Your task to perform on an android device: open sync settings in chrome Image 0: 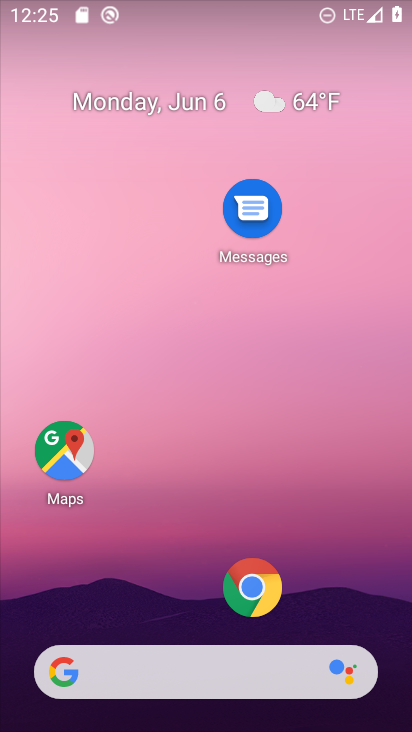
Step 0: click (255, 574)
Your task to perform on an android device: open sync settings in chrome Image 1: 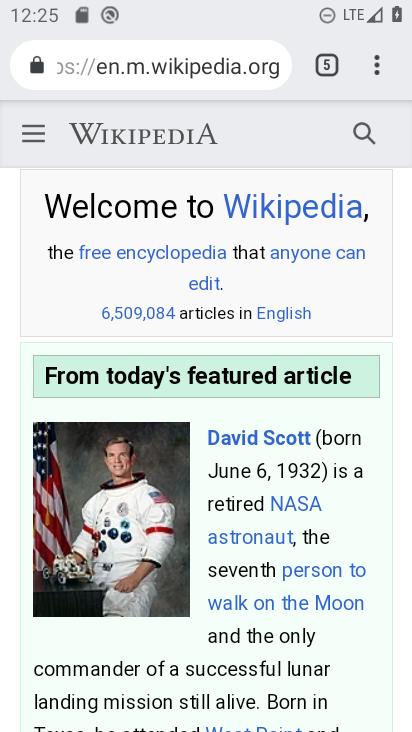
Step 1: click (388, 58)
Your task to perform on an android device: open sync settings in chrome Image 2: 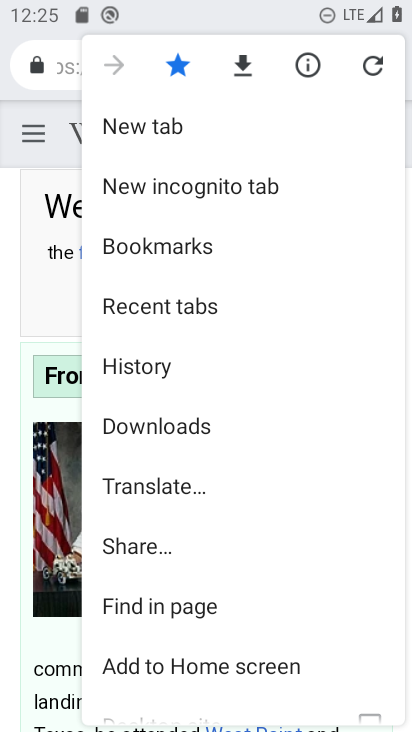
Step 2: drag from (166, 673) to (233, 268)
Your task to perform on an android device: open sync settings in chrome Image 3: 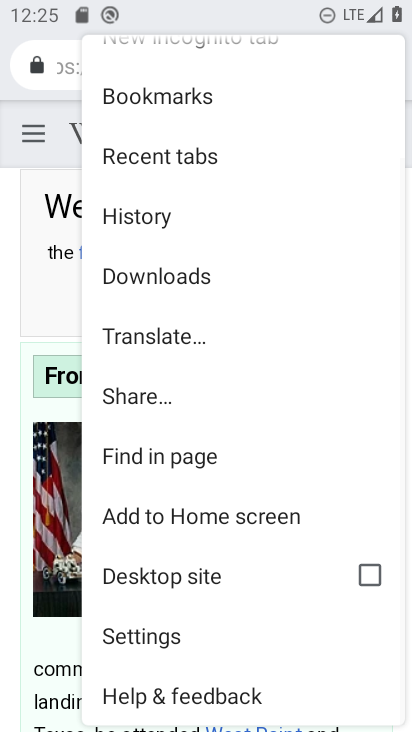
Step 3: click (133, 640)
Your task to perform on an android device: open sync settings in chrome Image 4: 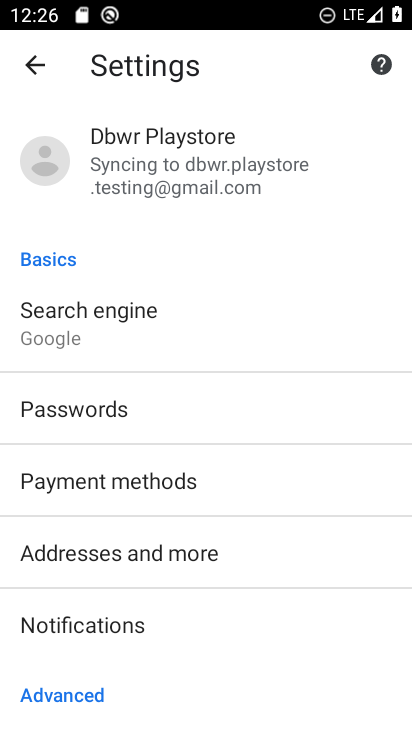
Step 4: click (247, 185)
Your task to perform on an android device: open sync settings in chrome Image 5: 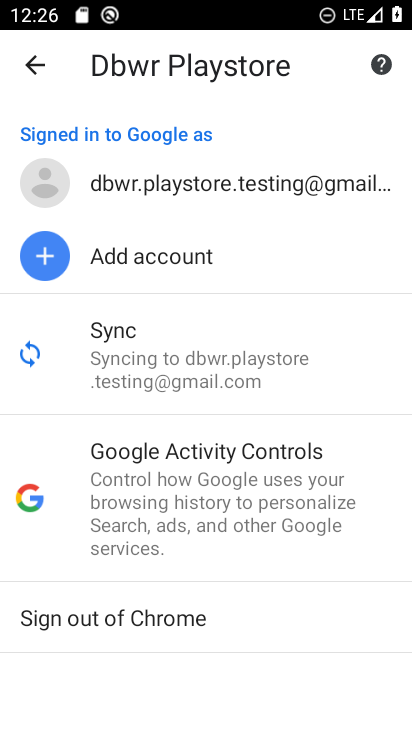
Step 5: click (99, 374)
Your task to perform on an android device: open sync settings in chrome Image 6: 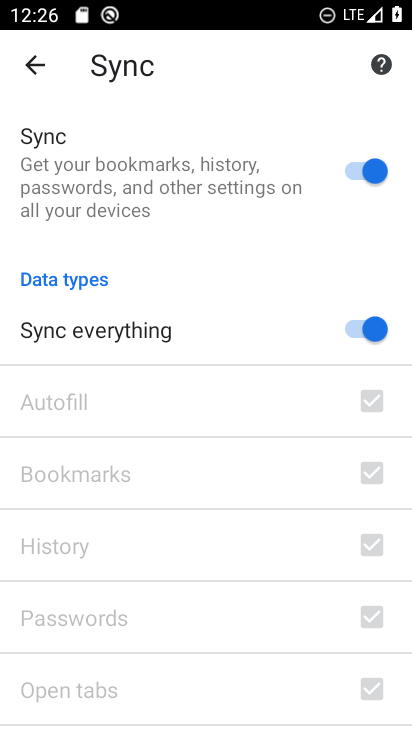
Step 6: task complete